Your task to perform on an android device: manage bookmarks in the chrome app Image 0: 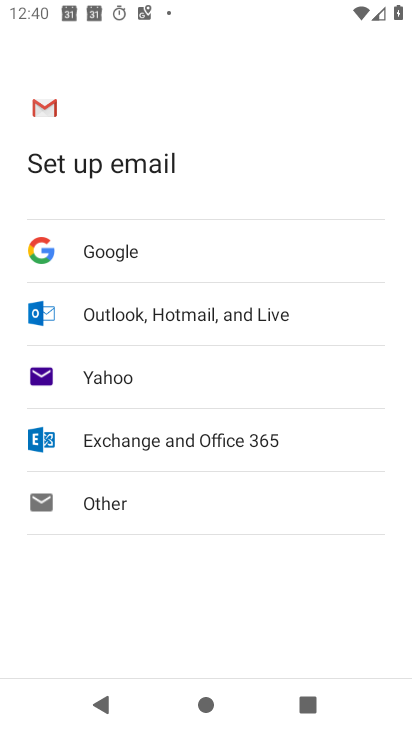
Step 0: press home button
Your task to perform on an android device: manage bookmarks in the chrome app Image 1: 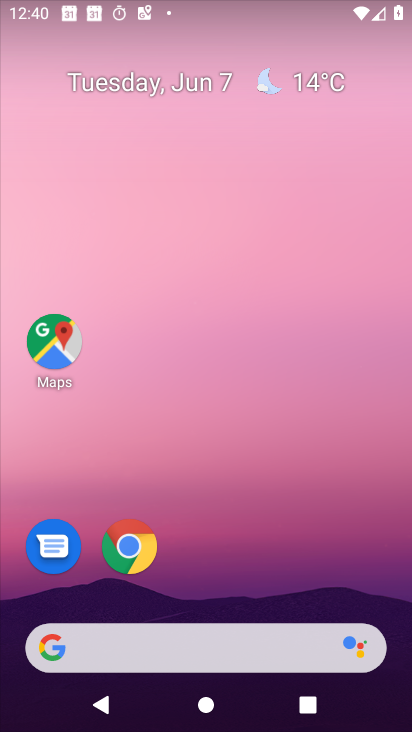
Step 1: click (122, 541)
Your task to perform on an android device: manage bookmarks in the chrome app Image 2: 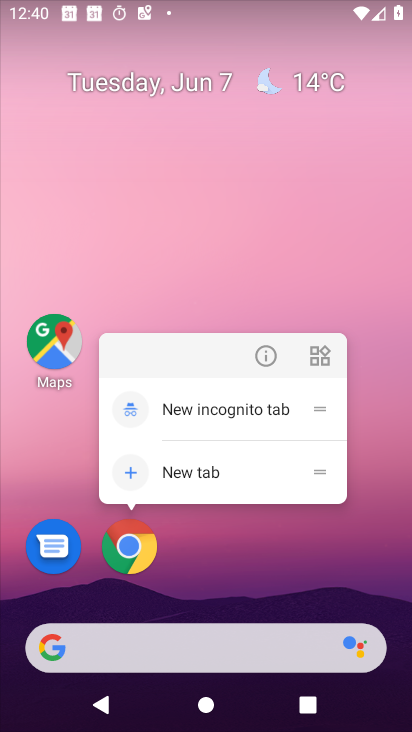
Step 2: click (150, 555)
Your task to perform on an android device: manage bookmarks in the chrome app Image 3: 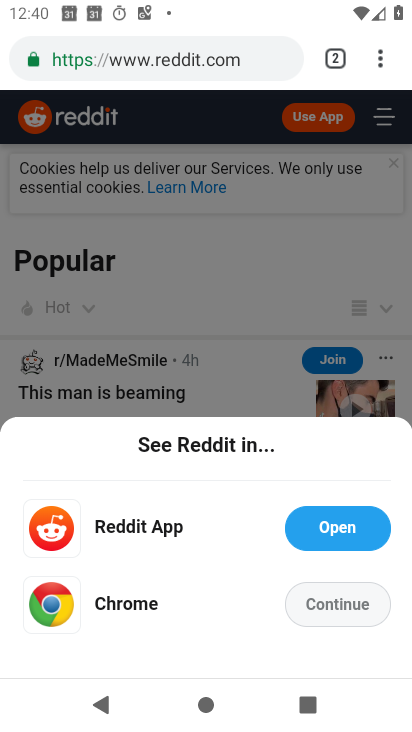
Step 3: click (375, 57)
Your task to perform on an android device: manage bookmarks in the chrome app Image 4: 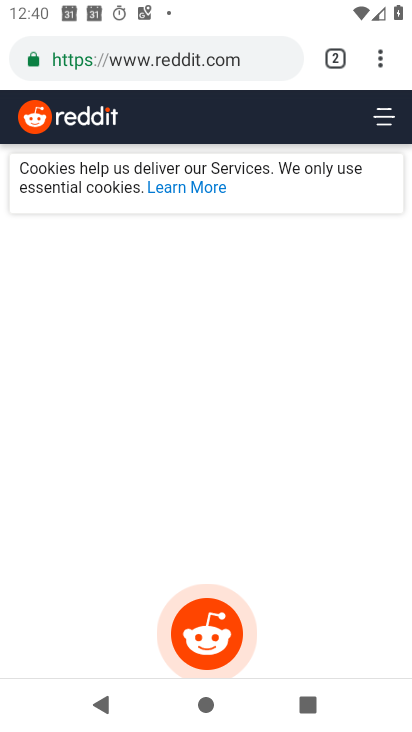
Step 4: click (373, 60)
Your task to perform on an android device: manage bookmarks in the chrome app Image 5: 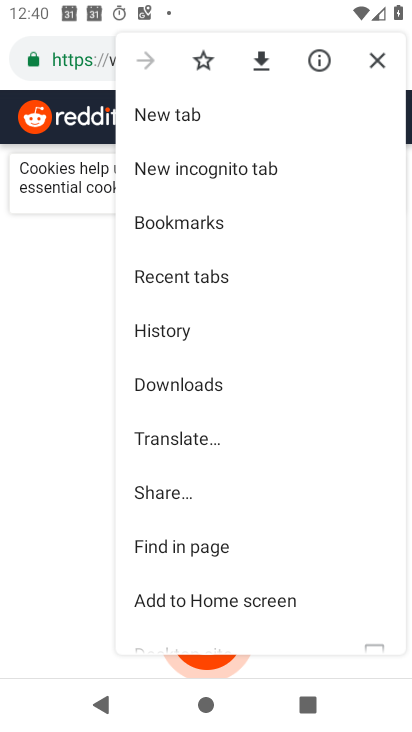
Step 5: drag from (171, 528) to (210, 432)
Your task to perform on an android device: manage bookmarks in the chrome app Image 6: 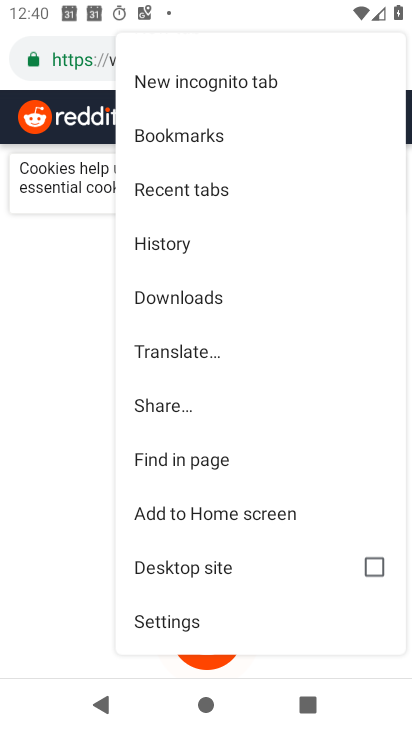
Step 6: click (186, 137)
Your task to perform on an android device: manage bookmarks in the chrome app Image 7: 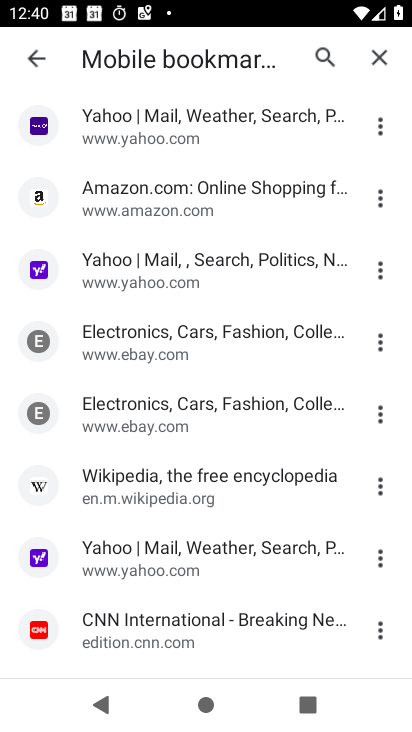
Step 7: click (378, 125)
Your task to perform on an android device: manage bookmarks in the chrome app Image 8: 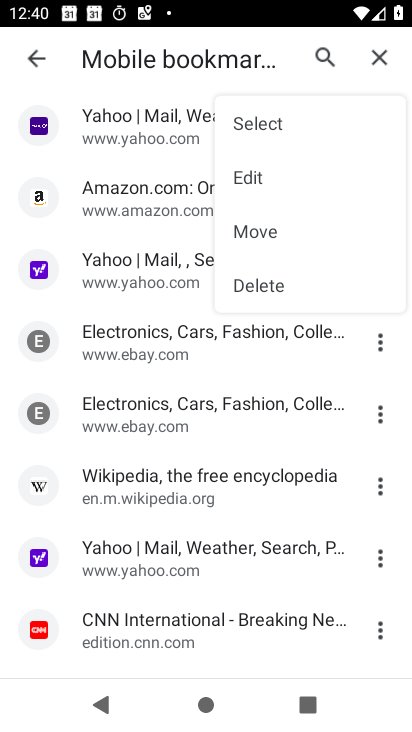
Step 8: click (251, 115)
Your task to perform on an android device: manage bookmarks in the chrome app Image 9: 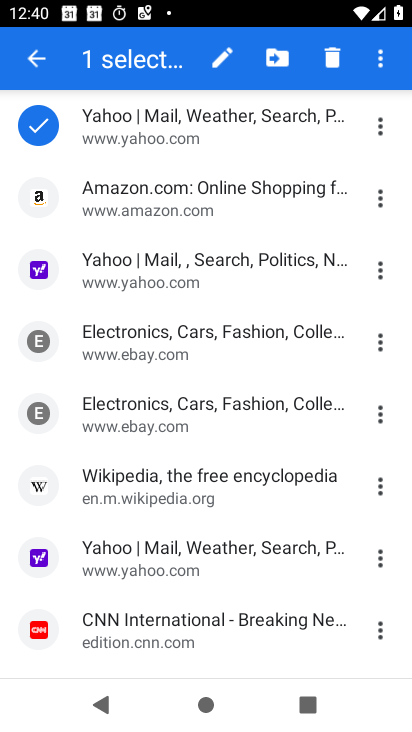
Step 9: click (104, 202)
Your task to perform on an android device: manage bookmarks in the chrome app Image 10: 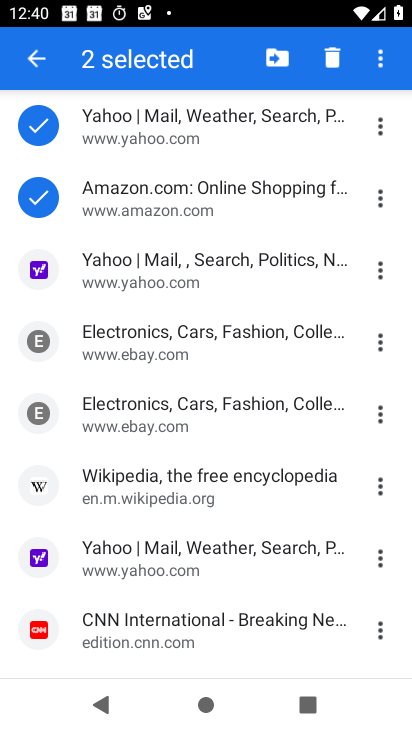
Step 10: click (118, 282)
Your task to perform on an android device: manage bookmarks in the chrome app Image 11: 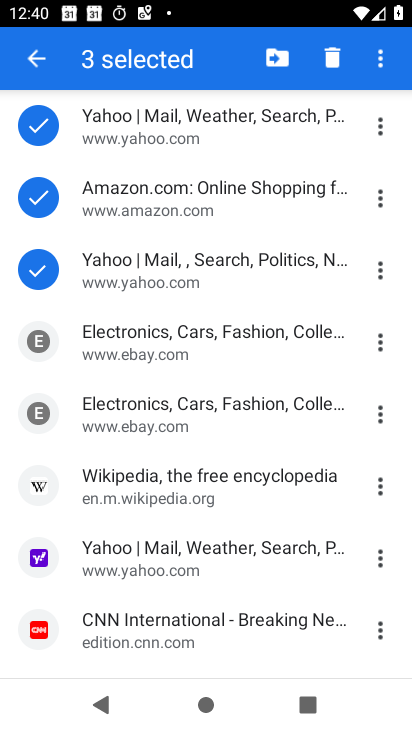
Step 11: click (130, 363)
Your task to perform on an android device: manage bookmarks in the chrome app Image 12: 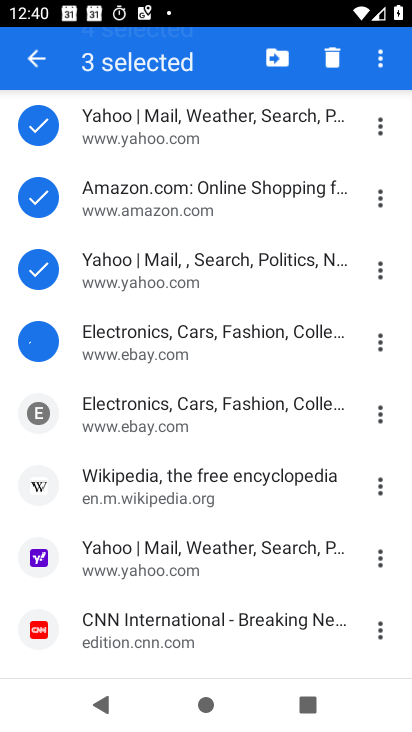
Step 12: click (135, 418)
Your task to perform on an android device: manage bookmarks in the chrome app Image 13: 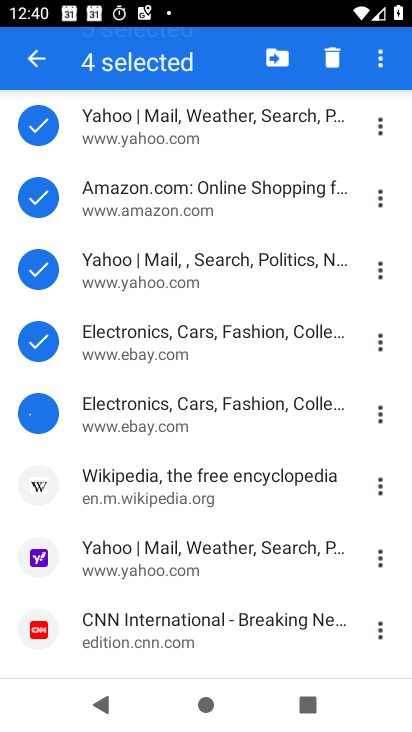
Step 13: click (130, 491)
Your task to perform on an android device: manage bookmarks in the chrome app Image 14: 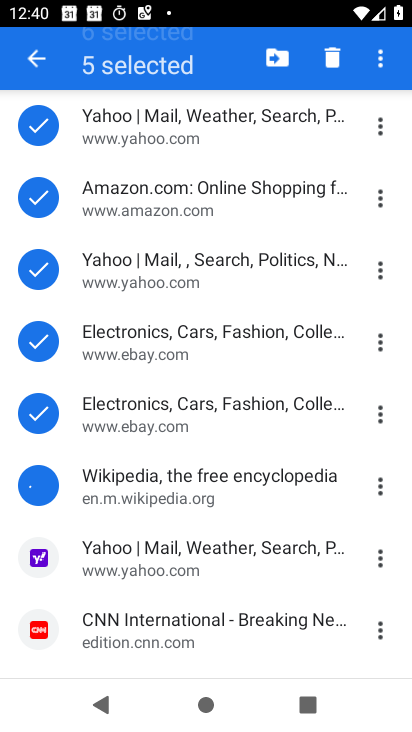
Step 14: click (120, 525)
Your task to perform on an android device: manage bookmarks in the chrome app Image 15: 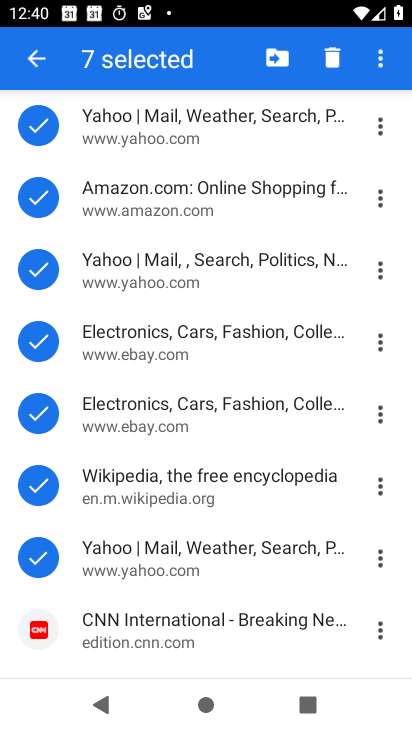
Step 15: click (108, 616)
Your task to perform on an android device: manage bookmarks in the chrome app Image 16: 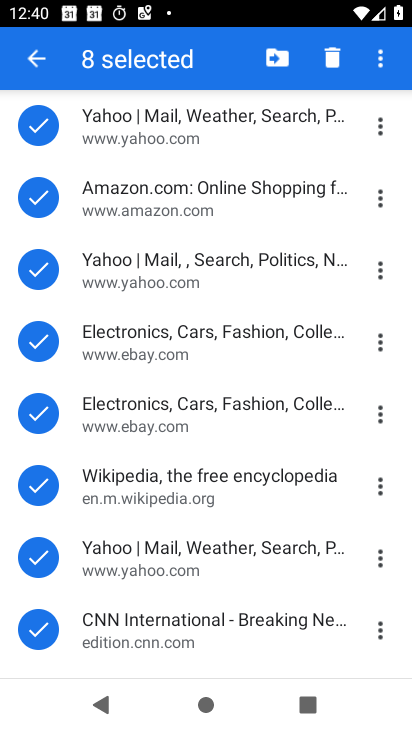
Step 16: click (278, 65)
Your task to perform on an android device: manage bookmarks in the chrome app Image 17: 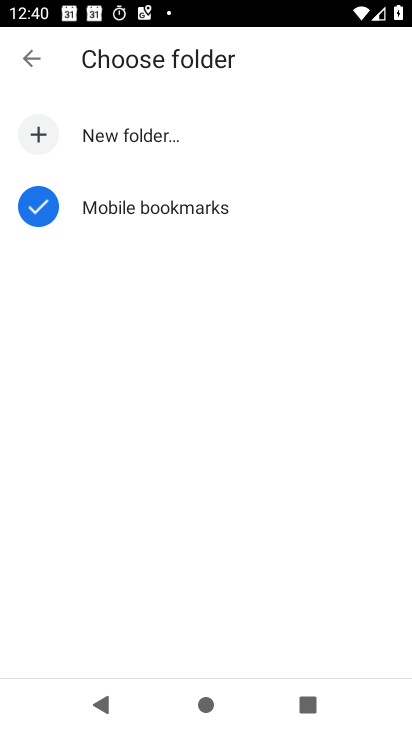
Step 17: click (144, 130)
Your task to perform on an android device: manage bookmarks in the chrome app Image 18: 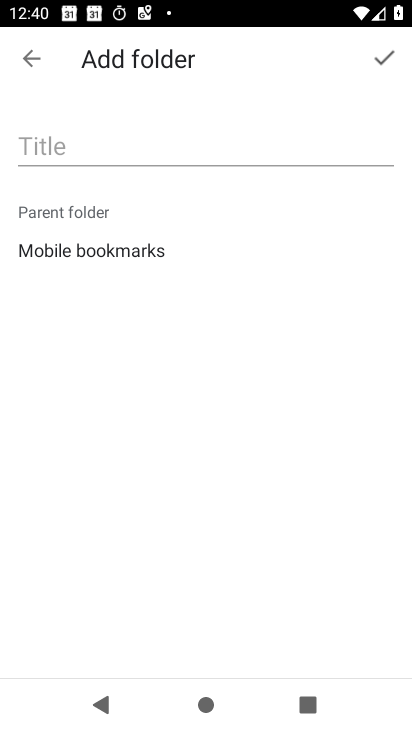
Step 18: click (162, 130)
Your task to perform on an android device: manage bookmarks in the chrome app Image 19: 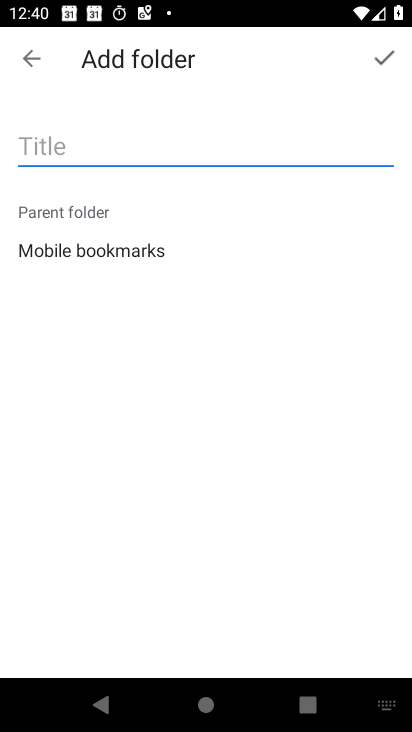
Step 19: click (162, 130)
Your task to perform on an android device: manage bookmarks in the chrome app Image 20: 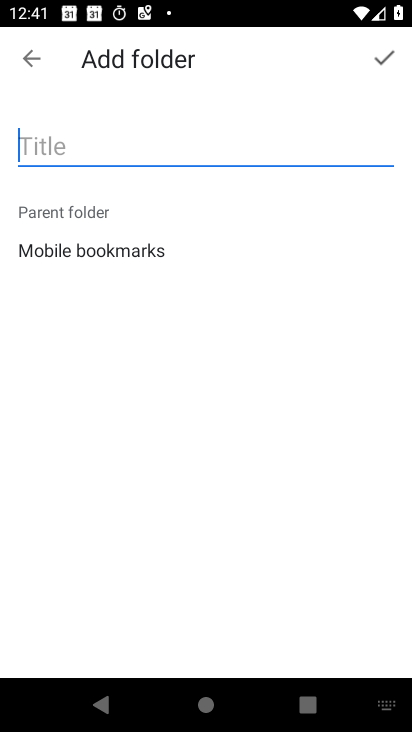
Step 20: type "bvcb"
Your task to perform on an android device: manage bookmarks in the chrome app Image 21: 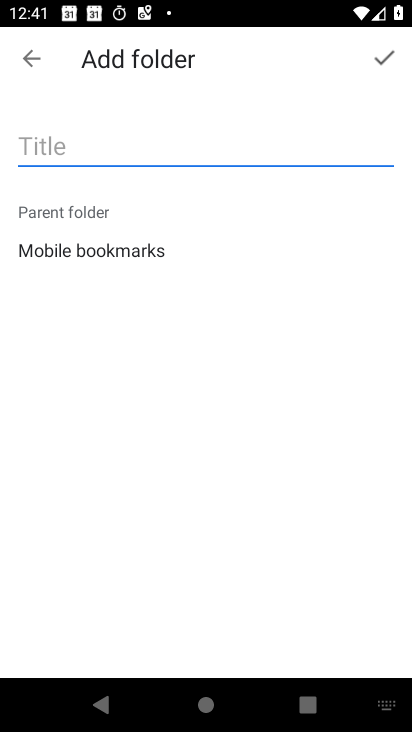
Step 21: click (374, 54)
Your task to perform on an android device: manage bookmarks in the chrome app Image 22: 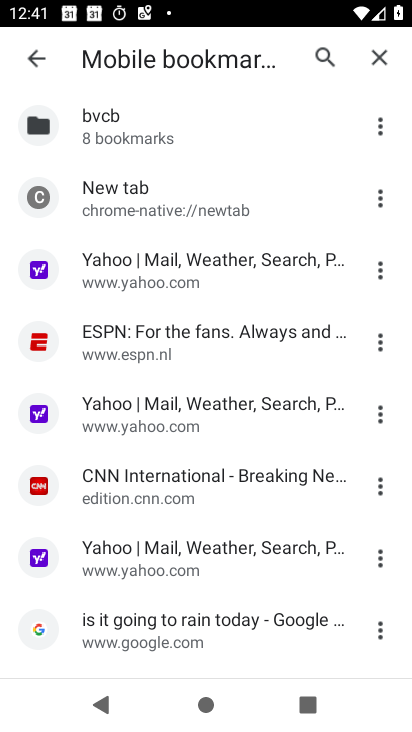
Step 22: task complete